Your task to perform on an android device: add a contact Image 0: 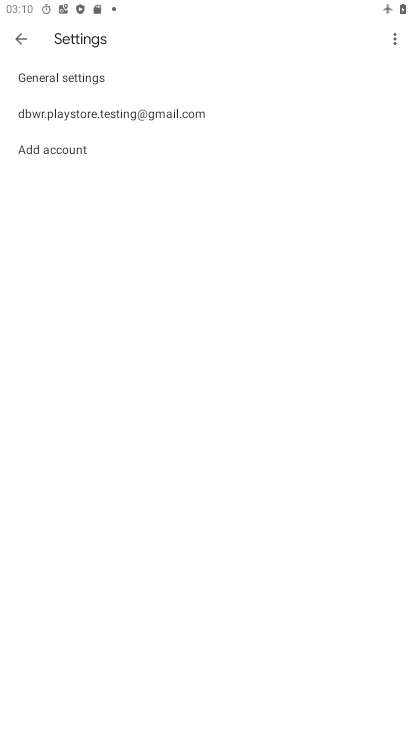
Step 0: press home button
Your task to perform on an android device: add a contact Image 1: 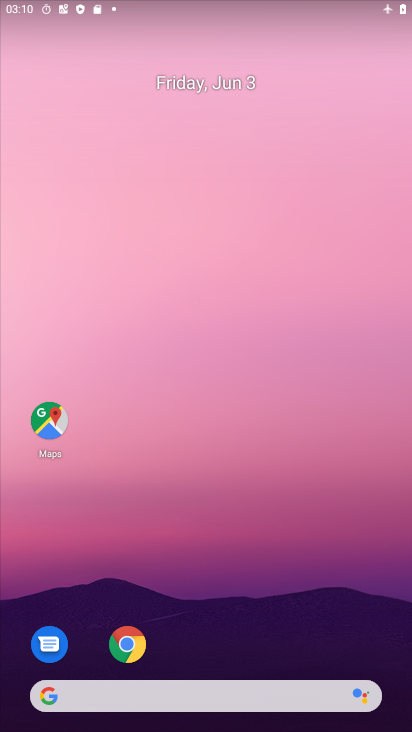
Step 1: drag from (220, 644) to (245, 342)
Your task to perform on an android device: add a contact Image 2: 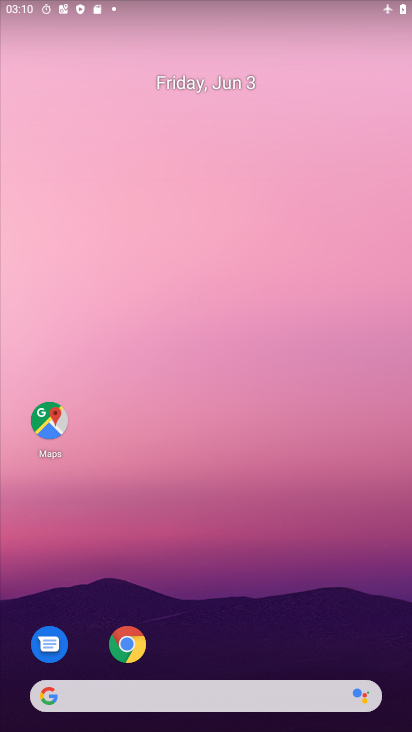
Step 2: drag from (223, 655) to (262, 192)
Your task to perform on an android device: add a contact Image 3: 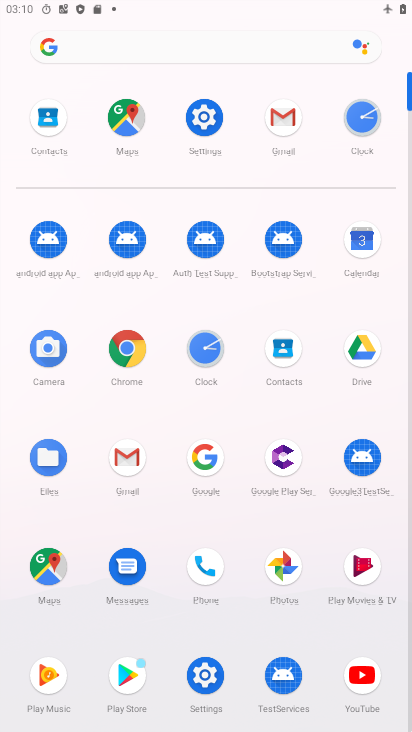
Step 3: click (284, 350)
Your task to perform on an android device: add a contact Image 4: 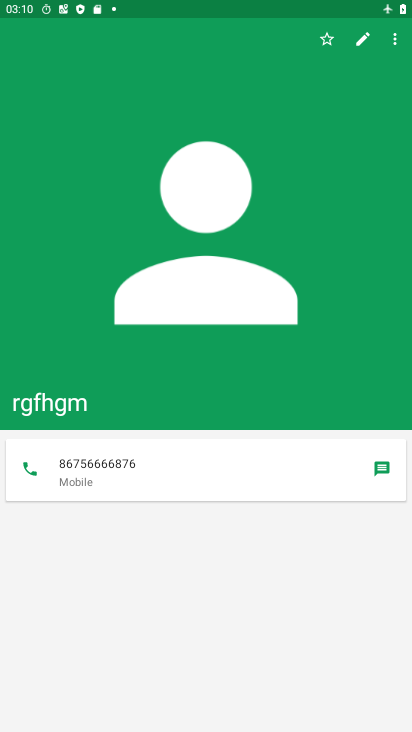
Step 4: press back button
Your task to perform on an android device: add a contact Image 5: 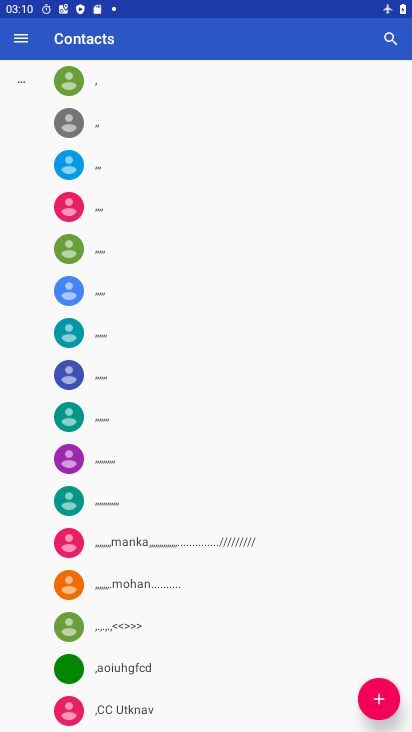
Step 5: click (370, 697)
Your task to perform on an android device: add a contact Image 6: 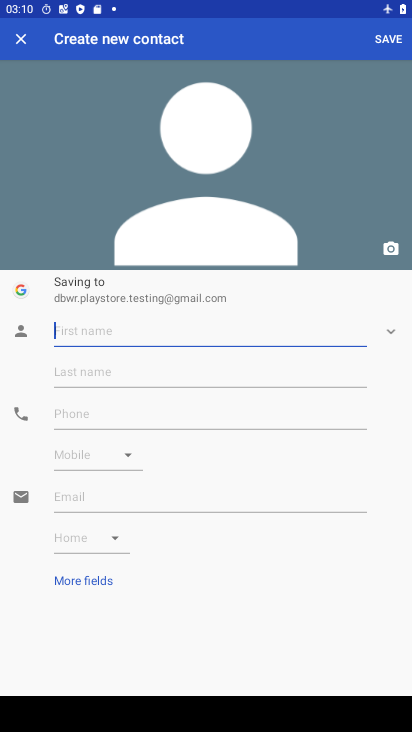
Step 6: type "giu"
Your task to perform on an android device: add a contact Image 7: 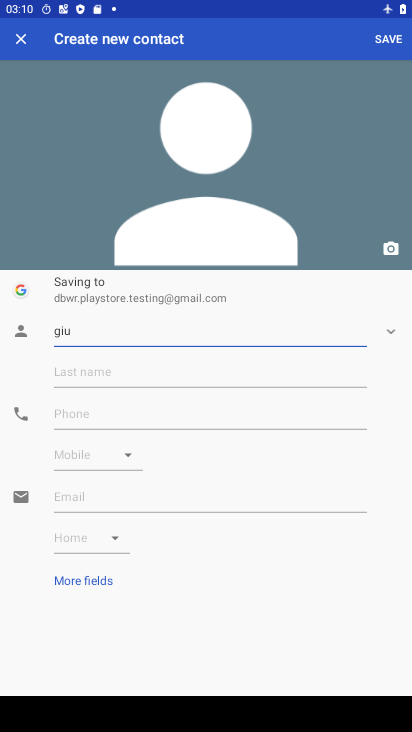
Step 7: click (74, 416)
Your task to perform on an android device: add a contact Image 8: 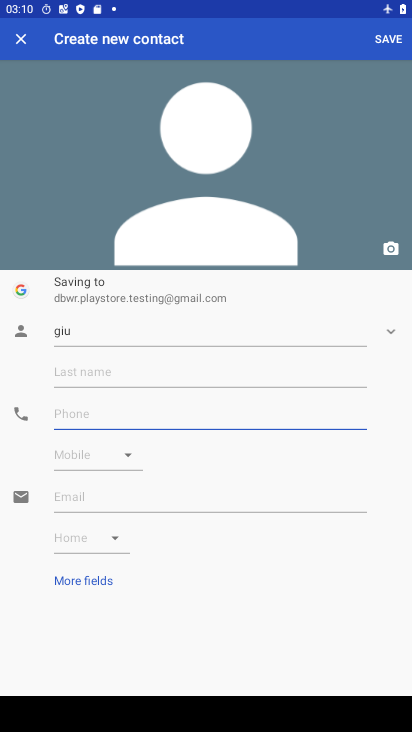
Step 8: type "989695887"
Your task to perform on an android device: add a contact Image 9: 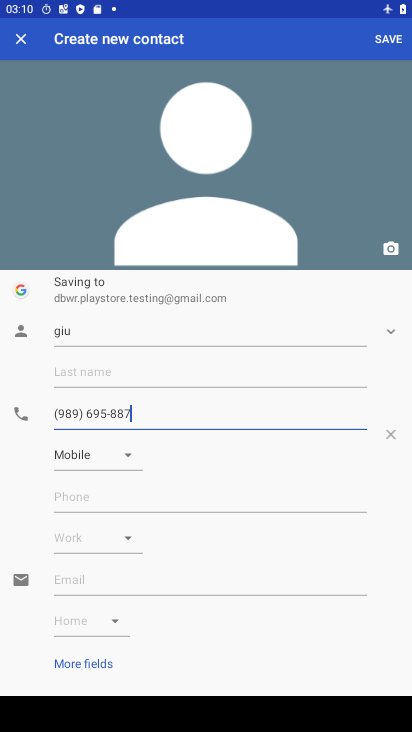
Step 9: click (381, 33)
Your task to perform on an android device: add a contact Image 10: 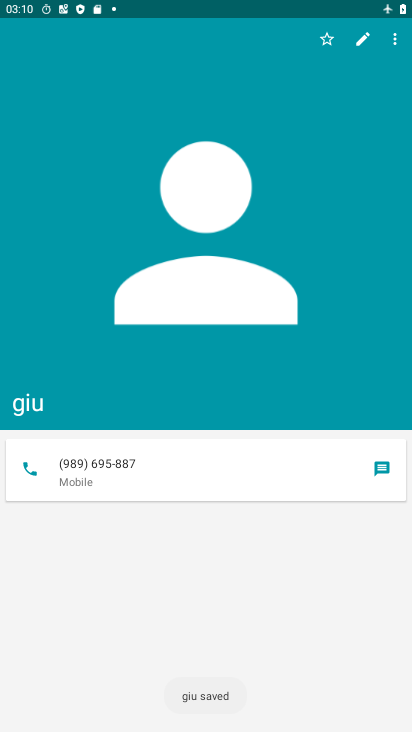
Step 10: task complete